Your task to perform on an android device: Search for hotels in Sydney Image 0: 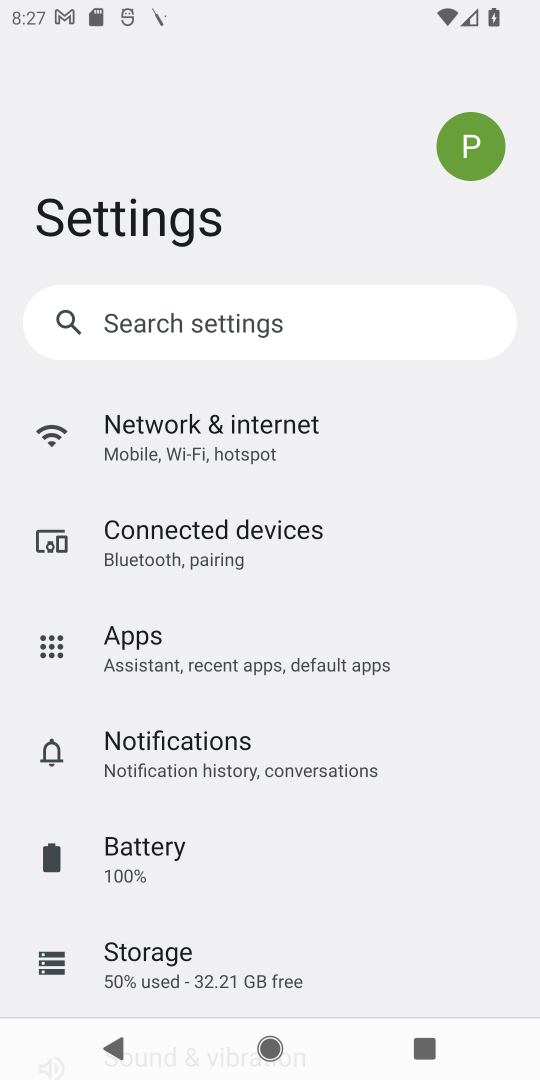
Step 0: press home button
Your task to perform on an android device: Search for hotels in Sydney Image 1: 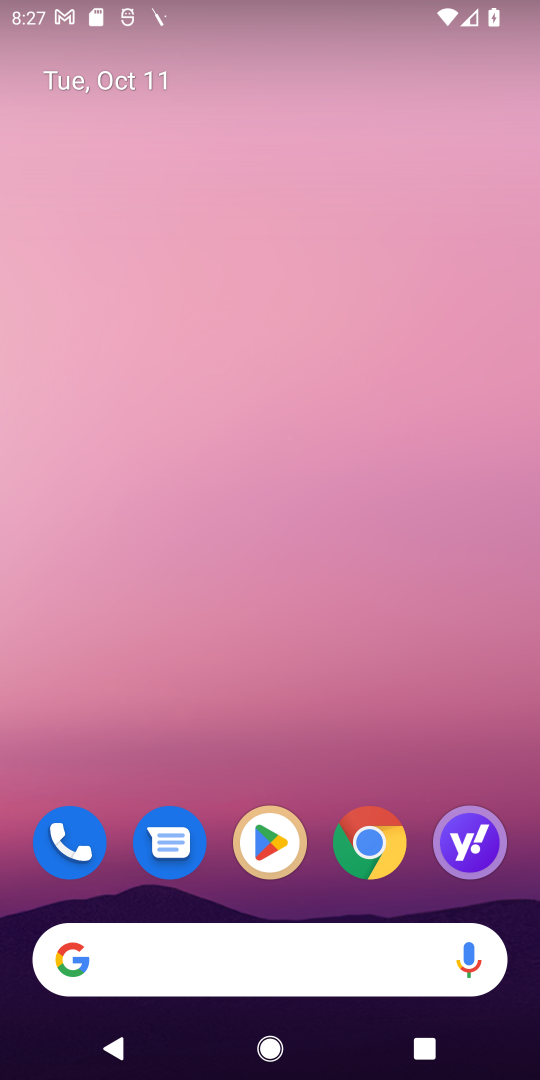
Step 1: click (376, 844)
Your task to perform on an android device: Search for hotels in Sydney Image 2: 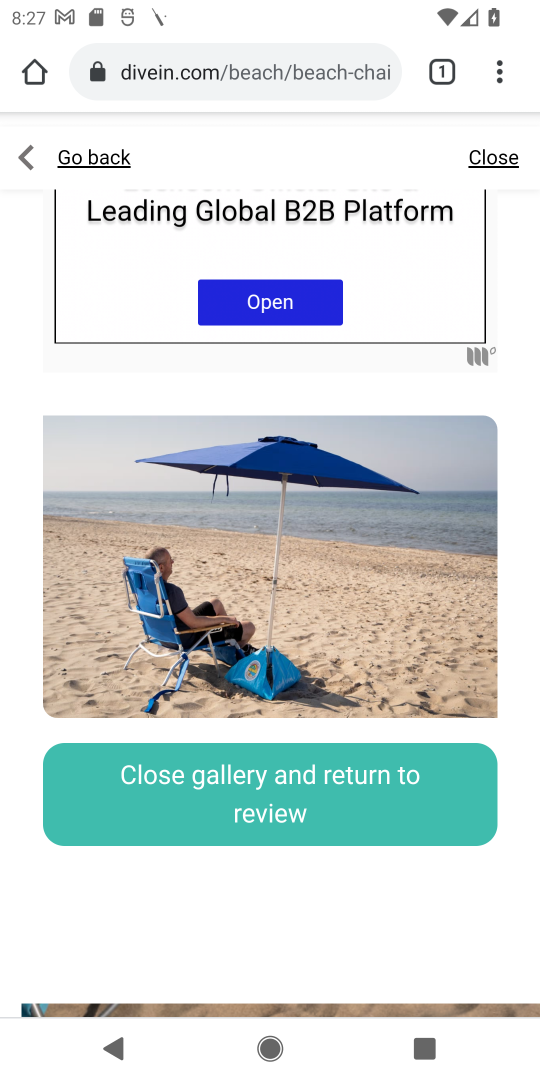
Step 2: click (288, 69)
Your task to perform on an android device: Search for hotels in Sydney Image 3: 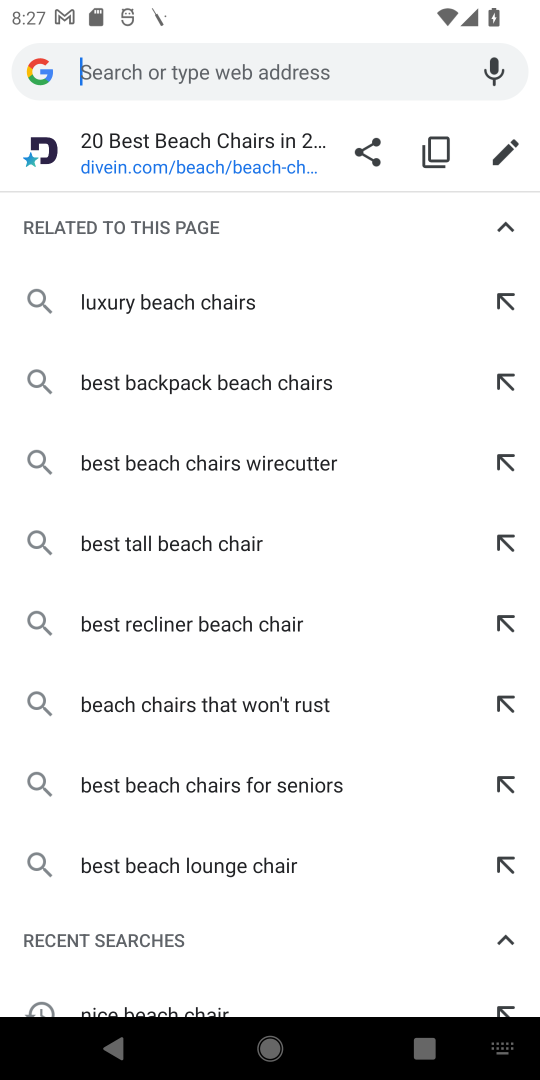
Step 3: type "hotel in sydney "
Your task to perform on an android device: Search for hotels in Sydney Image 4: 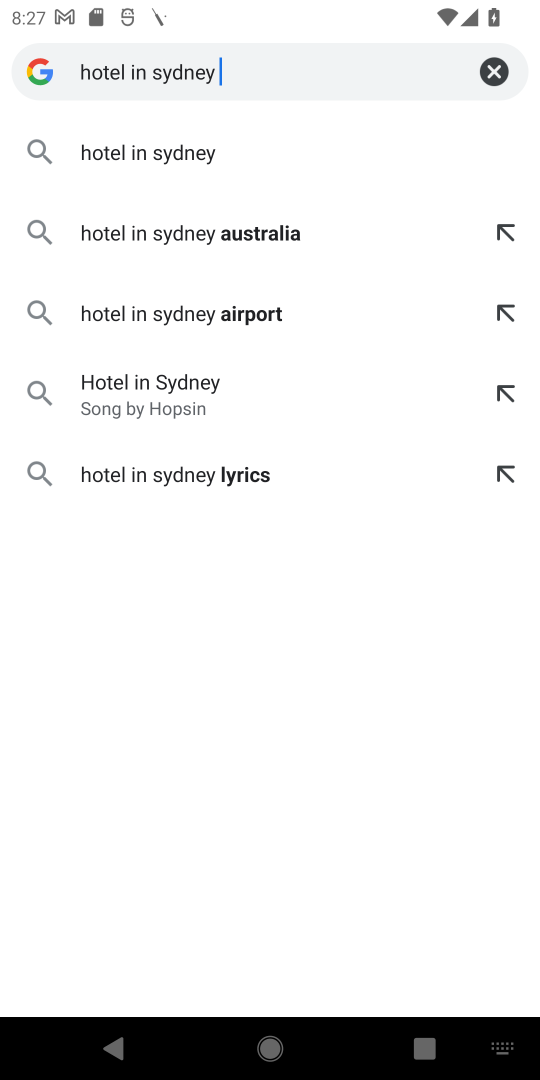
Step 4: click (132, 146)
Your task to perform on an android device: Search for hotels in Sydney Image 5: 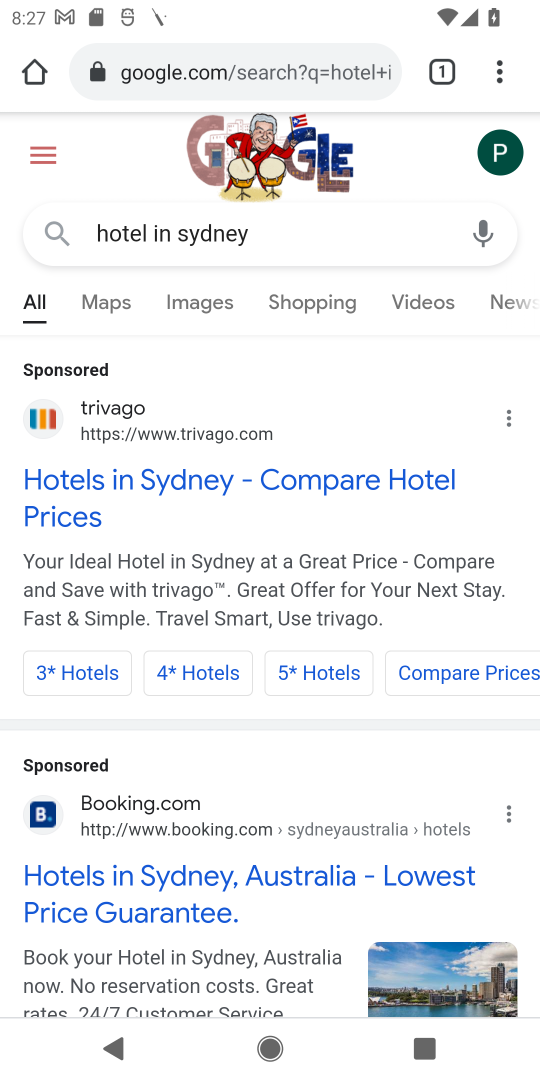
Step 5: click (166, 484)
Your task to perform on an android device: Search for hotels in Sydney Image 6: 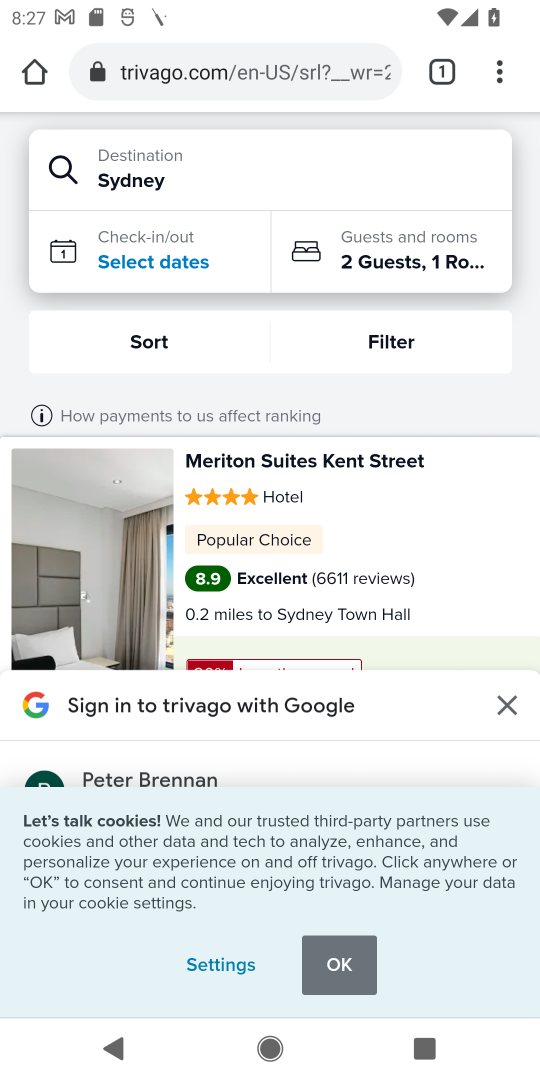
Step 6: click (344, 961)
Your task to perform on an android device: Search for hotels in Sydney Image 7: 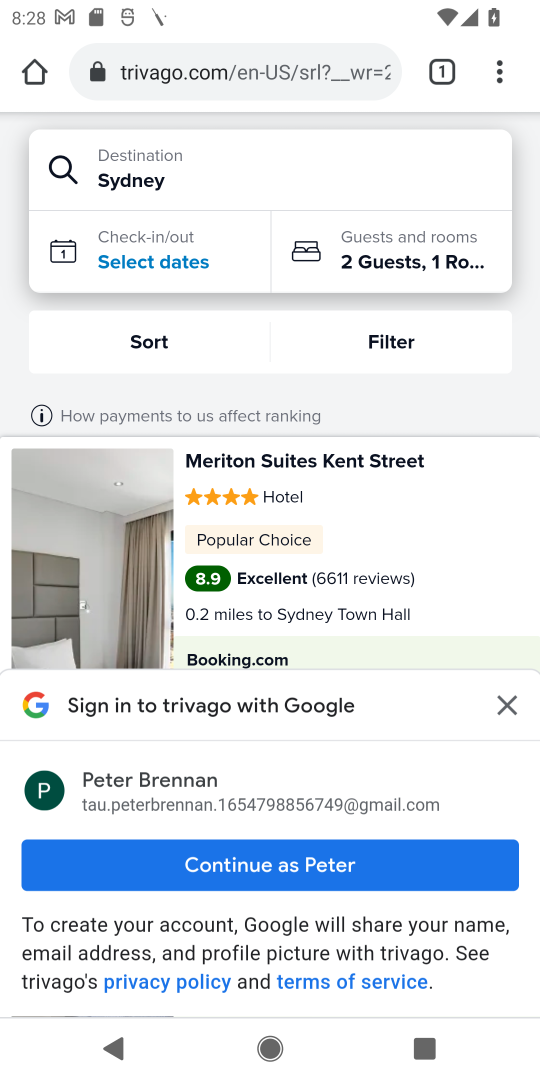
Step 7: click (503, 701)
Your task to perform on an android device: Search for hotels in Sydney Image 8: 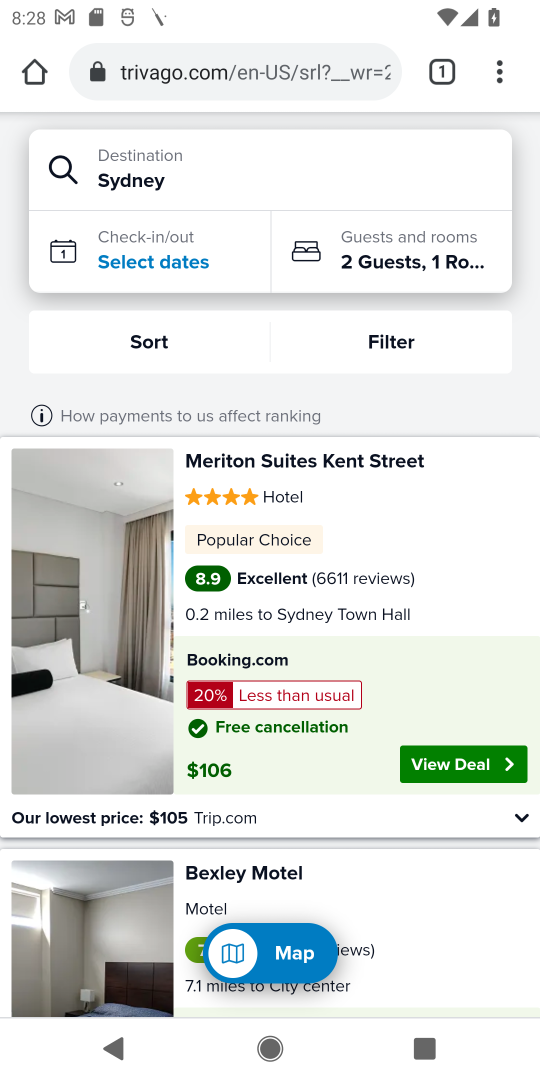
Step 8: drag from (302, 895) to (409, 239)
Your task to perform on an android device: Search for hotels in Sydney Image 9: 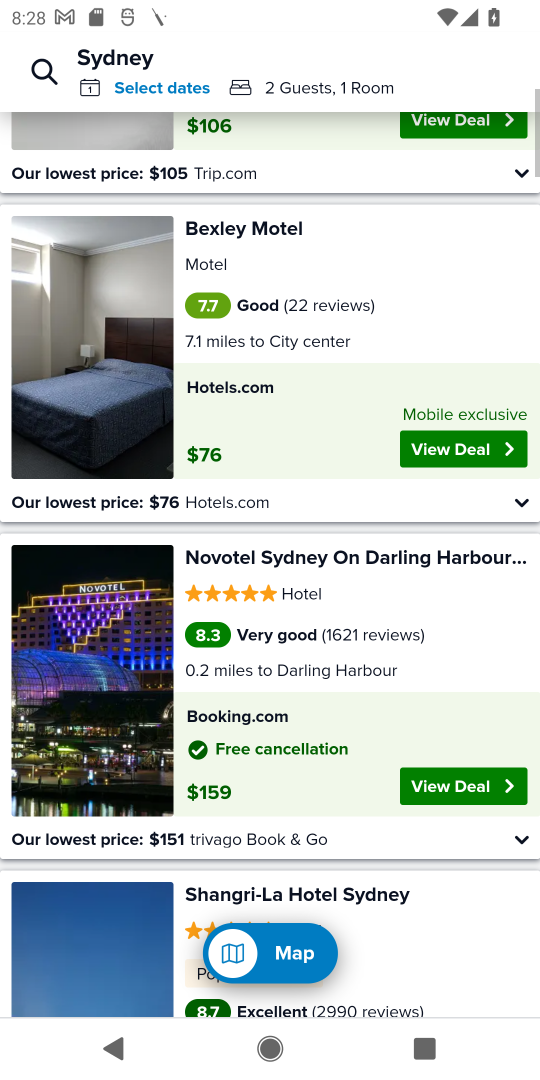
Step 9: drag from (367, 807) to (394, 332)
Your task to perform on an android device: Search for hotels in Sydney Image 10: 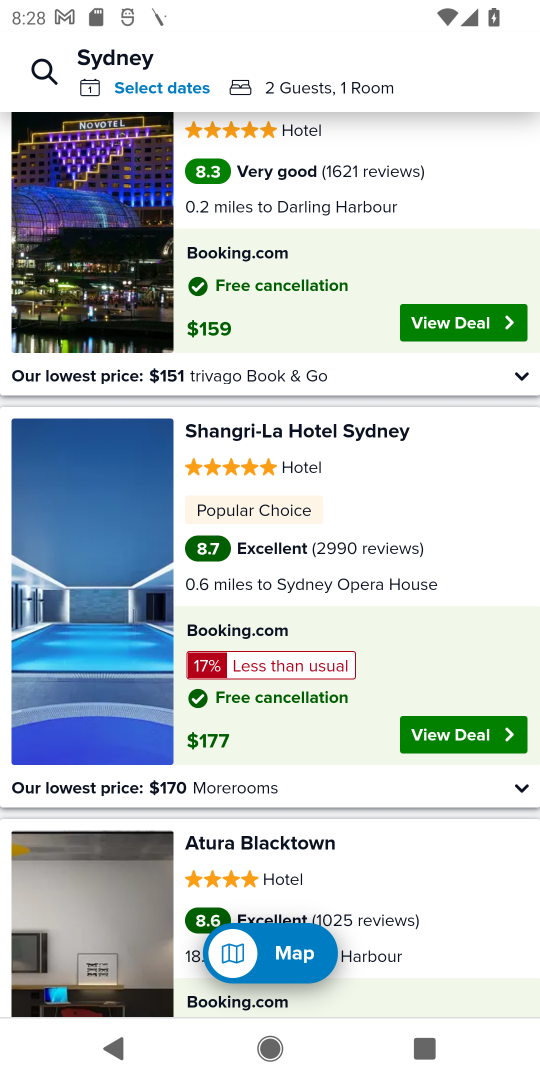
Step 10: drag from (350, 889) to (419, 405)
Your task to perform on an android device: Search for hotels in Sydney Image 11: 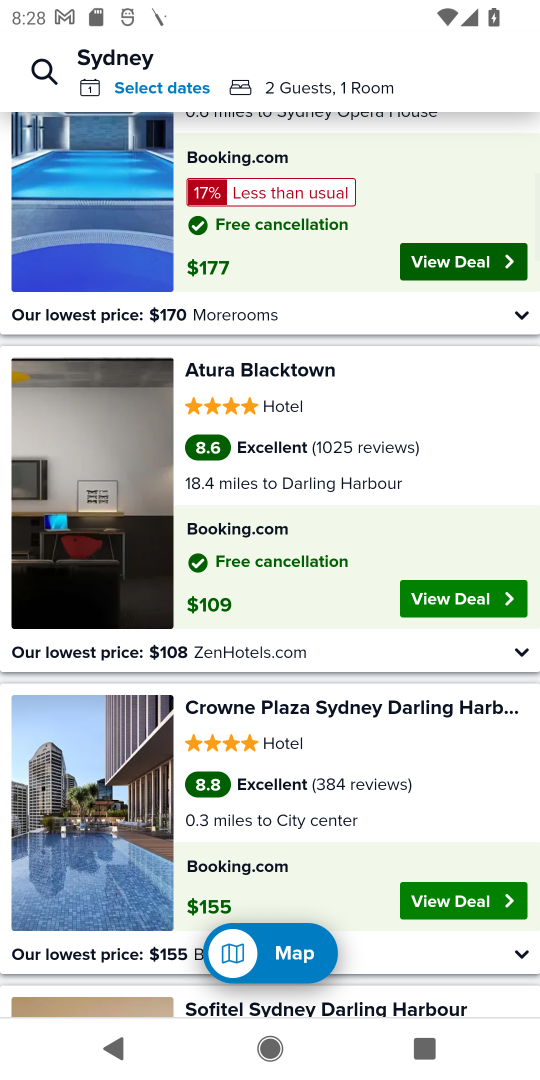
Step 11: drag from (370, 793) to (413, 359)
Your task to perform on an android device: Search for hotels in Sydney Image 12: 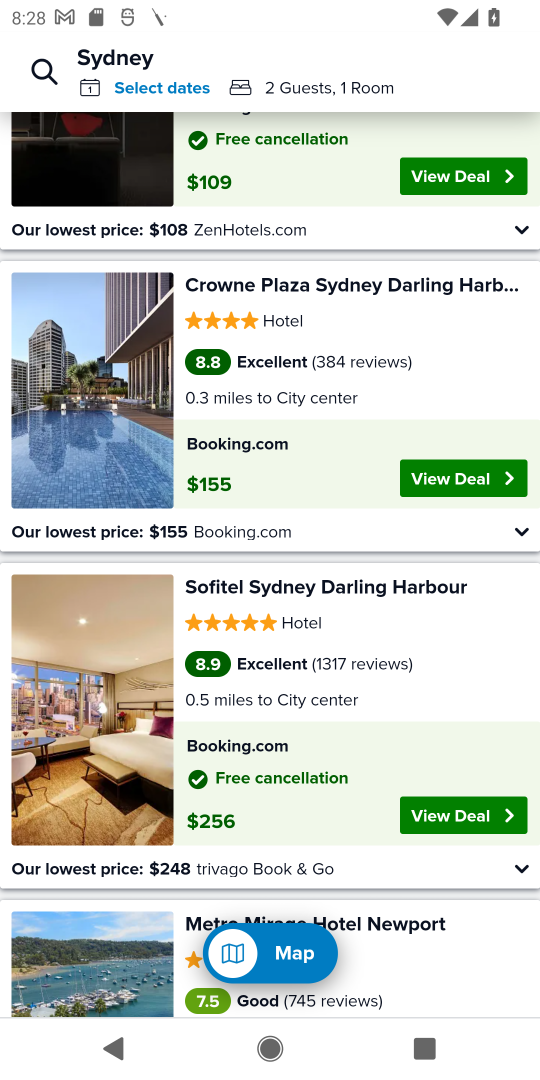
Step 12: drag from (370, 827) to (415, 426)
Your task to perform on an android device: Search for hotels in Sydney Image 13: 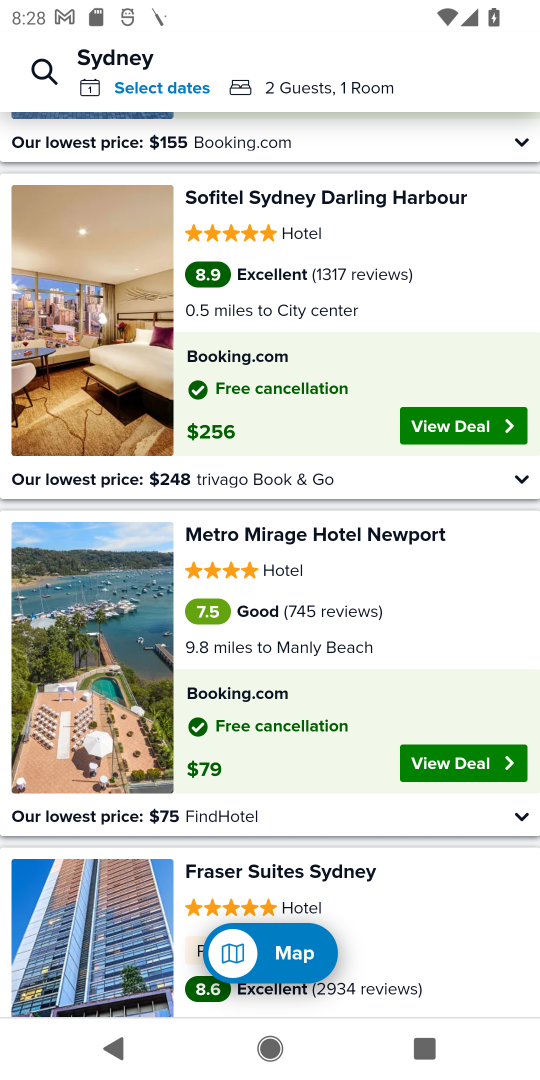
Step 13: drag from (366, 918) to (378, 461)
Your task to perform on an android device: Search for hotels in Sydney Image 14: 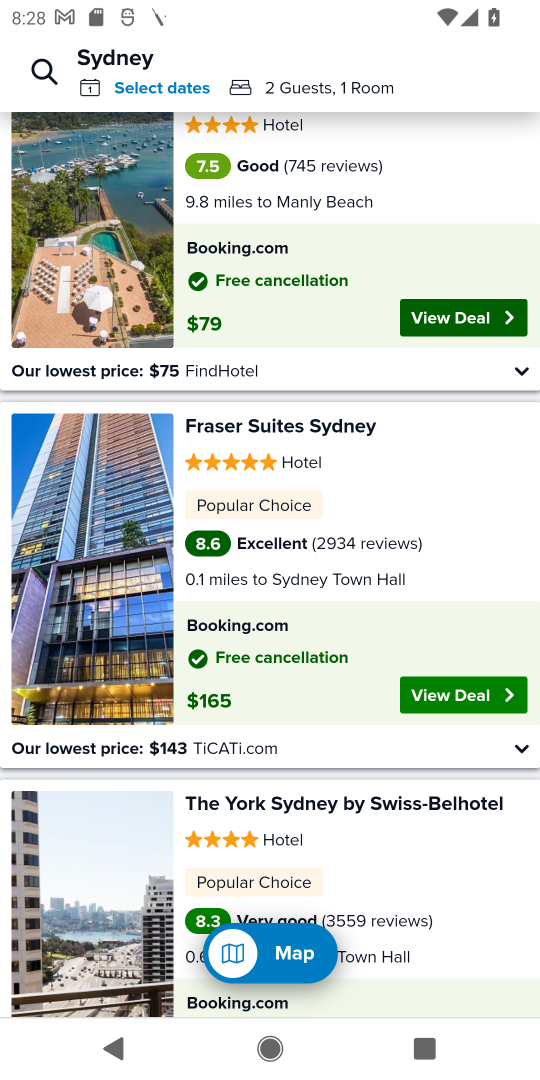
Step 14: drag from (358, 683) to (314, 182)
Your task to perform on an android device: Search for hotels in Sydney Image 15: 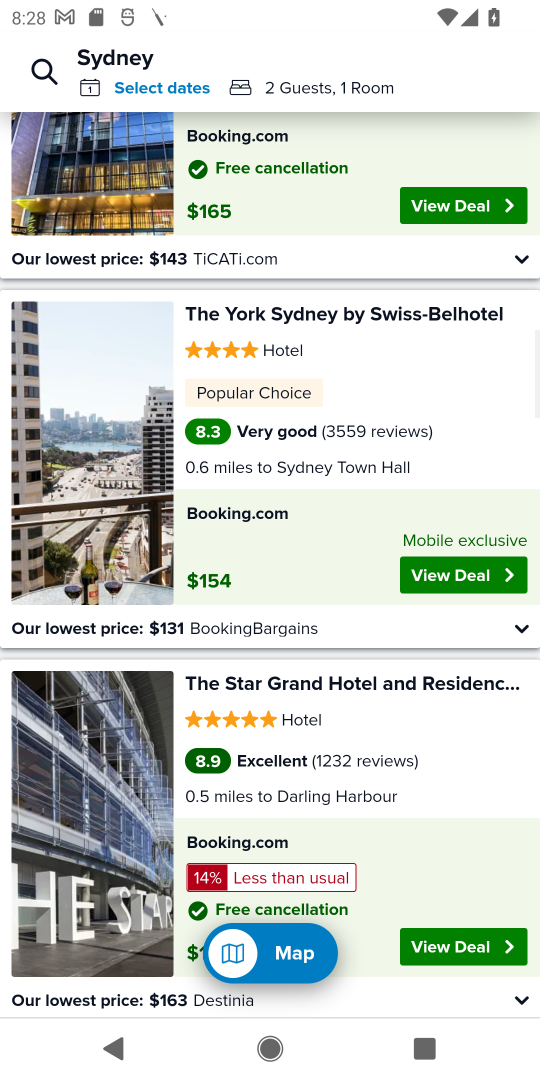
Step 15: drag from (368, 762) to (329, 164)
Your task to perform on an android device: Search for hotels in Sydney Image 16: 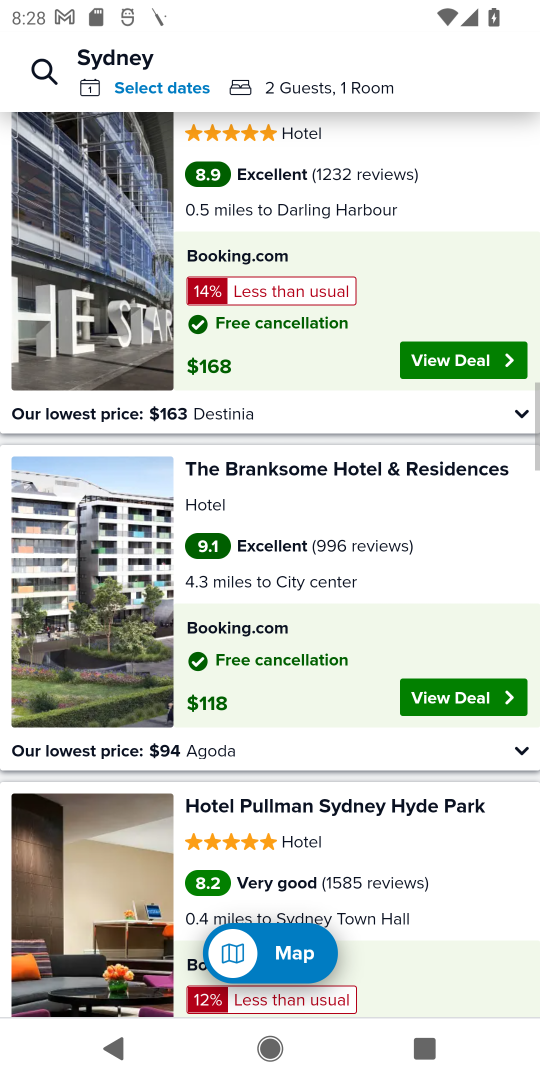
Step 16: drag from (314, 854) to (368, 279)
Your task to perform on an android device: Search for hotels in Sydney Image 17: 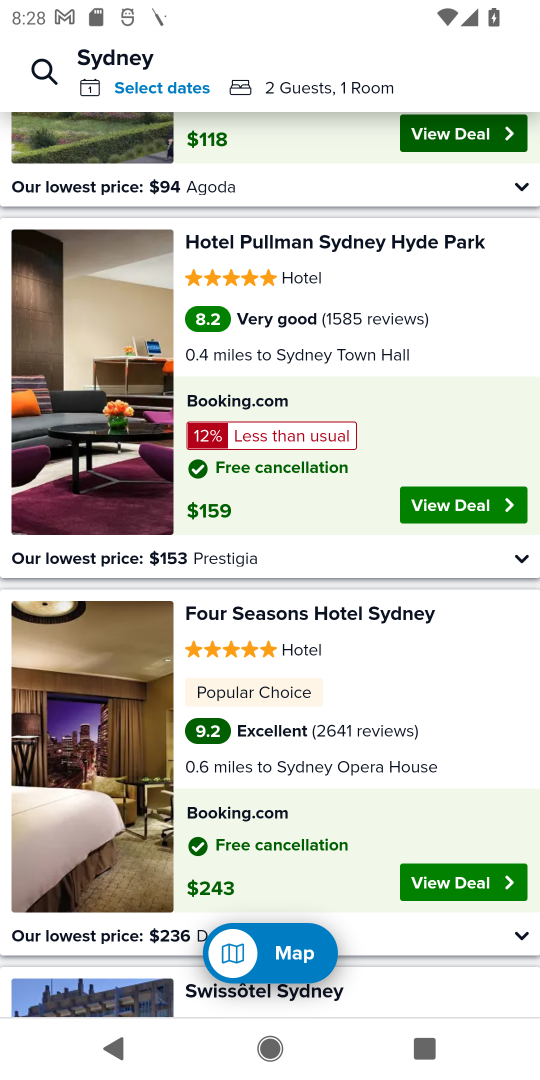
Step 17: drag from (394, 954) to (390, 422)
Your task to perform on an android device: Search for hotels in Sydney Image 18: 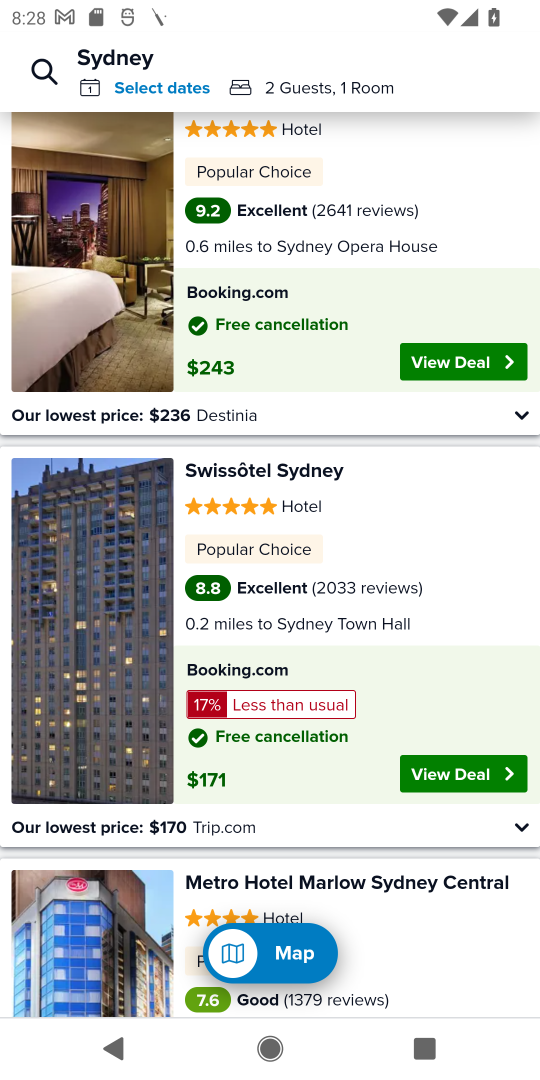
Step 18: drag from (377, 936) to (353, 338)
Your task to perform on an android device: Search for hotels in Sydney Image 19: 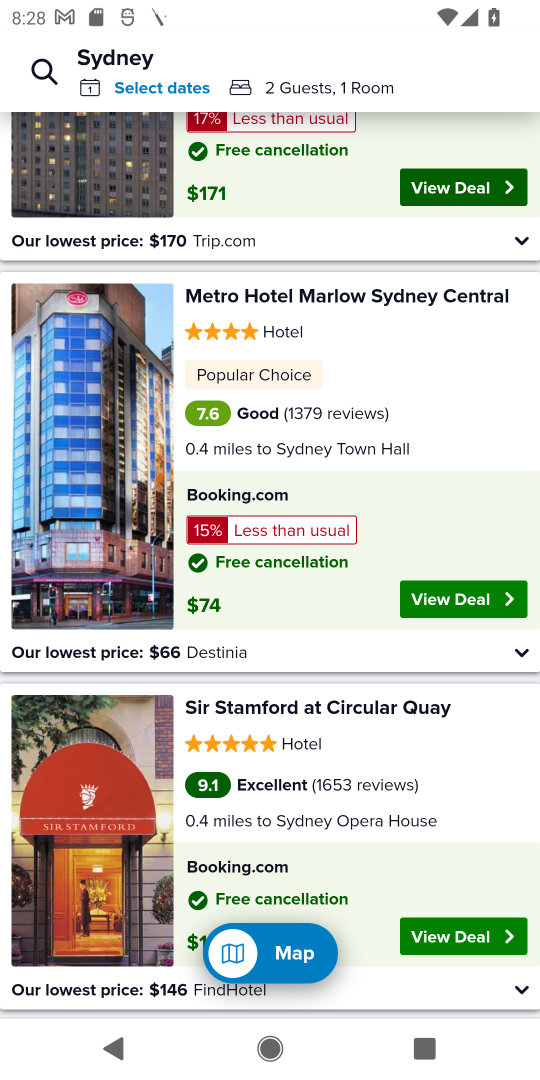
Step 19: drag from (155, 818) to (160, 419)
Your task to perform on an android device: Search for hotels in Sydney Image 20: 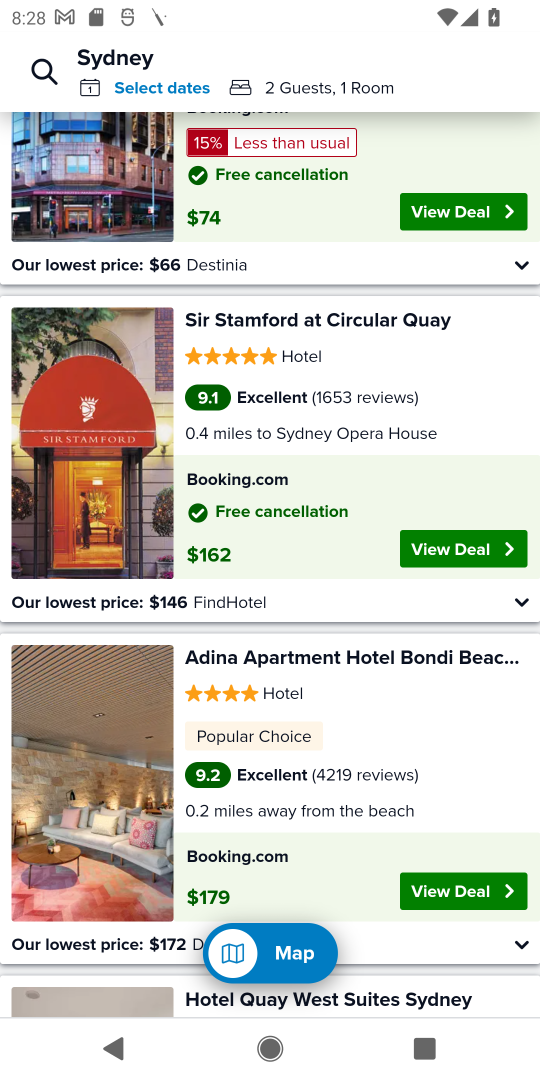
Step 20: drag from (174, 884) to (248, 155)
Your task to perform on an android device: Search for hotels in Sydney Image 21: 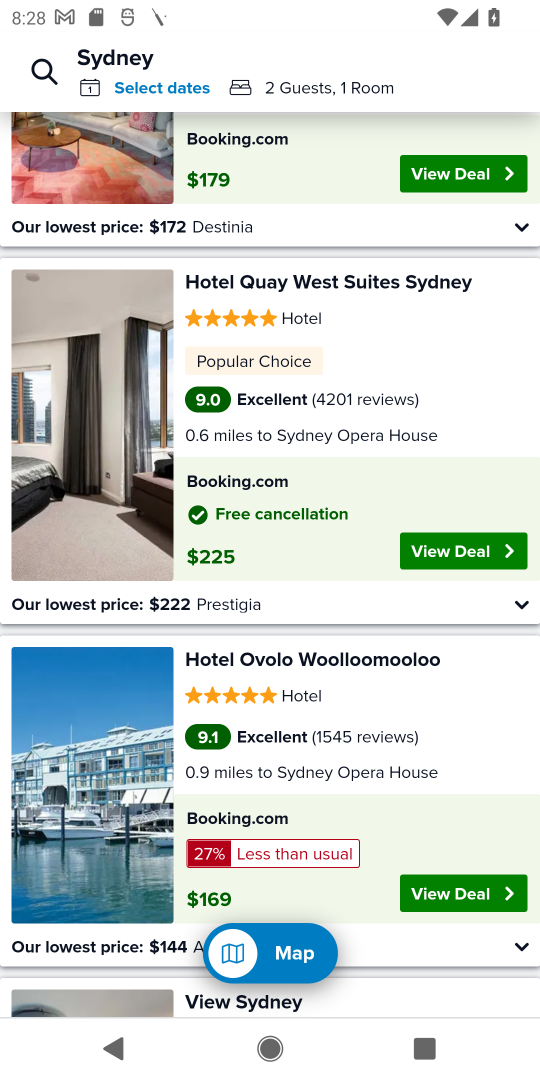
Step 21: drag from (89, 792) to (191, 310)
Your task to perform on an android device: Search for hotels in Sydney Image 22: 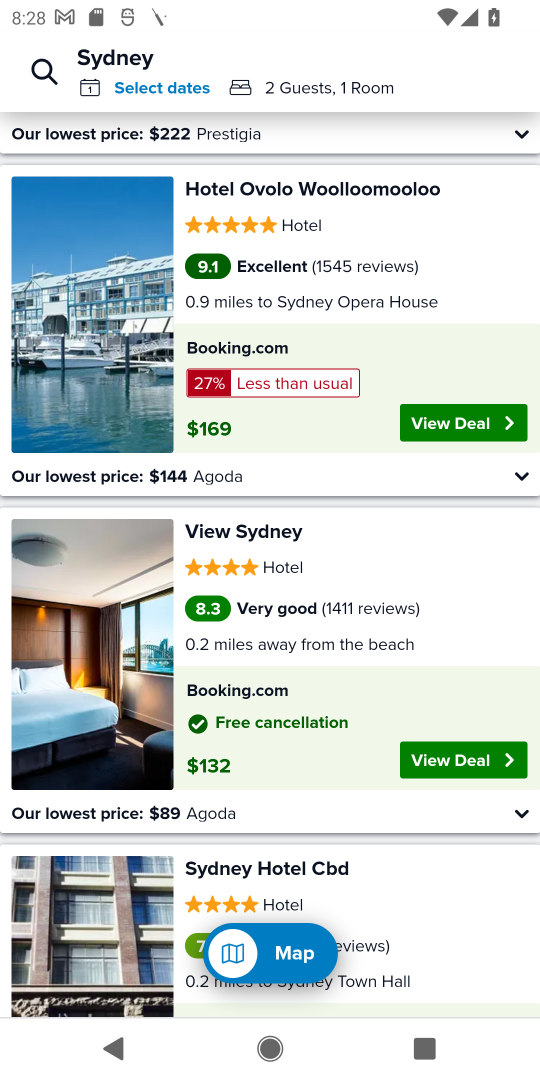
Step 22: drag from (172, 680) to (282, 300)
Your task to perform on an android device: Search for hotels in Sydney Image 23: 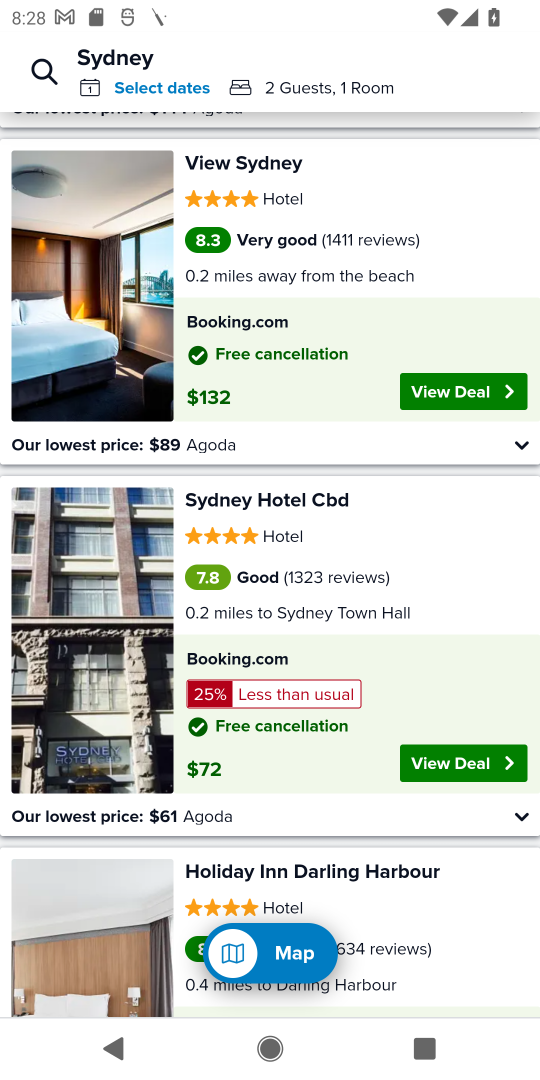
Step 23: drag from (205, 780) to (324, 338)
Your task to perform on an android device: Search for hotels in Sydney Image 24: 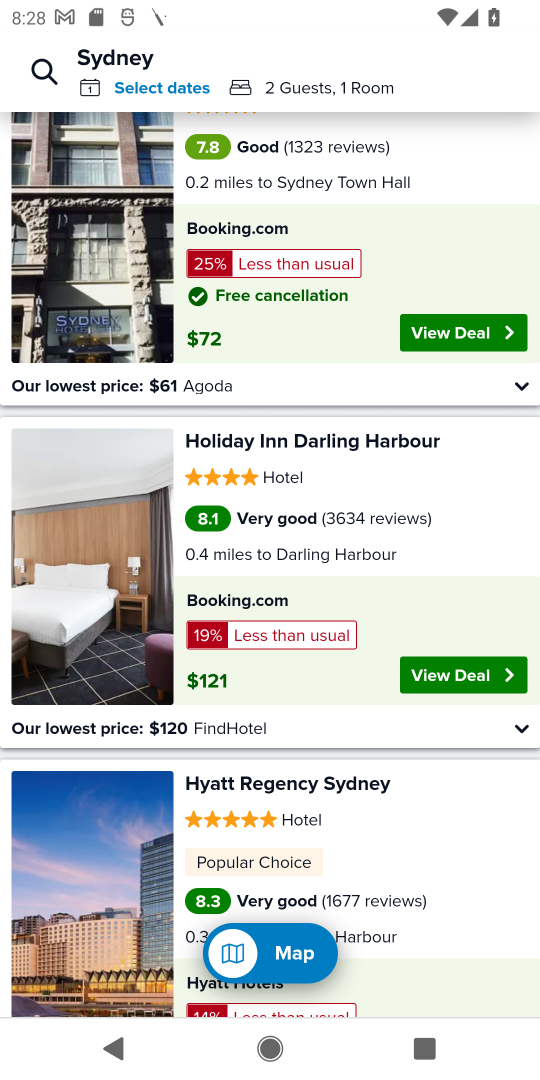
Step 24: drag from (143, 675) to (167, 245)
Your task to perform on an android device: Search for hotels in Sydney Image 25: 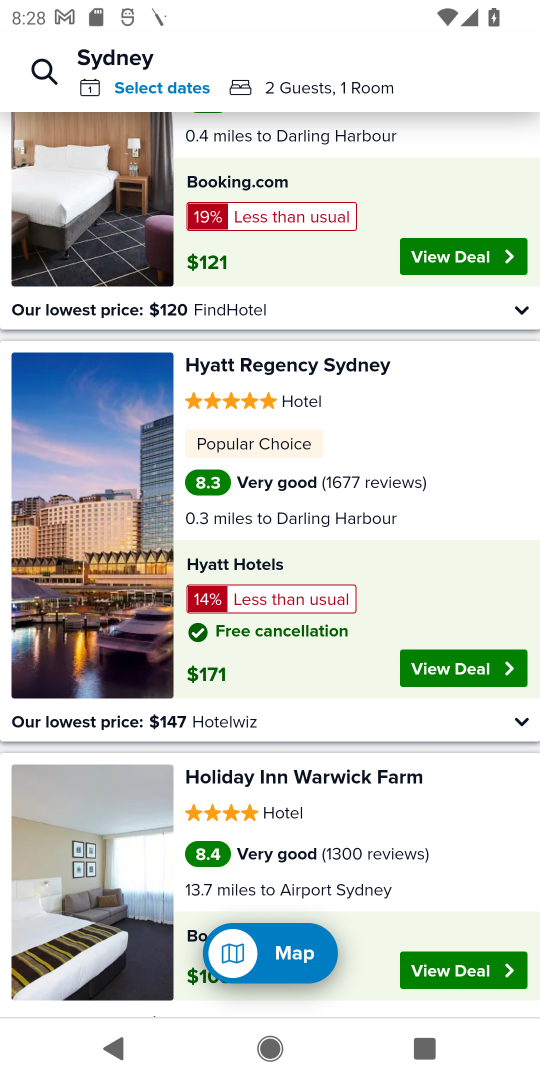
Step 25: drag from (131, 888) to (133, 354)
Your task to perform on an android device: Search for hotels in Sydney Image 26: 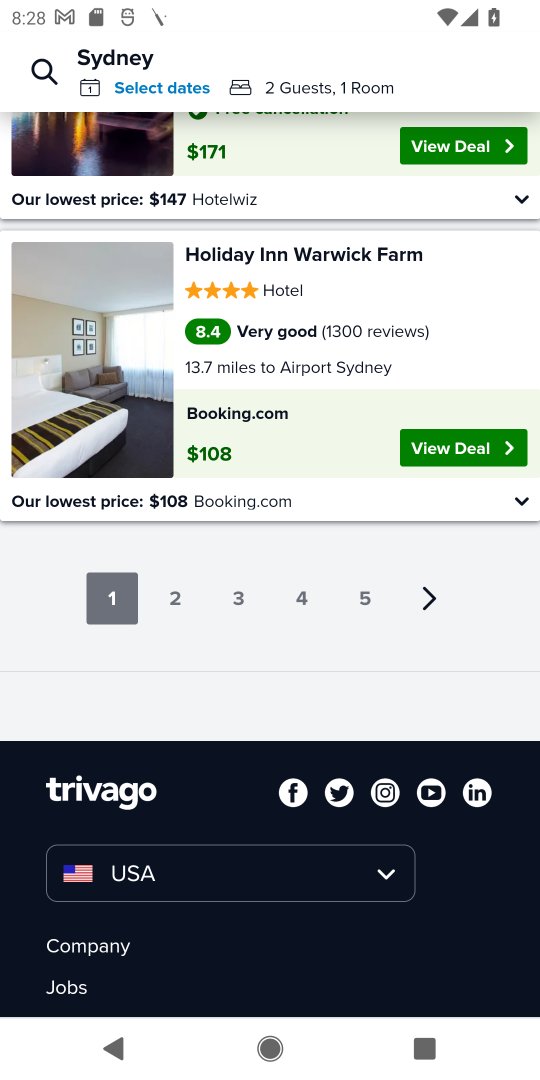
Step 26: drag from (261, 331) to (246, 1072)
Your task to perform on an android device: Search for hotels in Sydney Image 27: 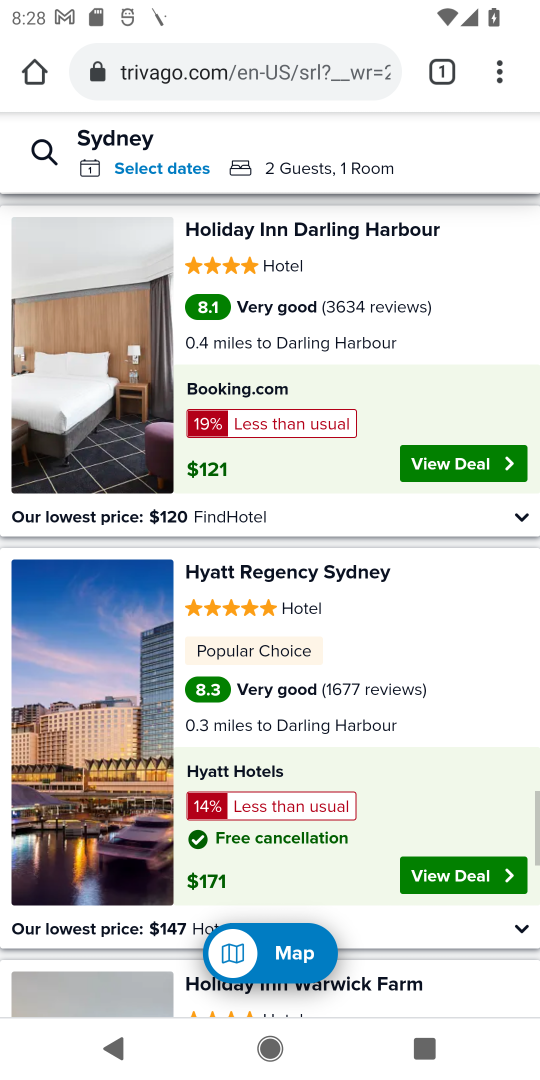
Step 27: drag from (332, 839) to (288, 1073)
Your task to perform on an android device: Search for hotels in Sydney Image 28: 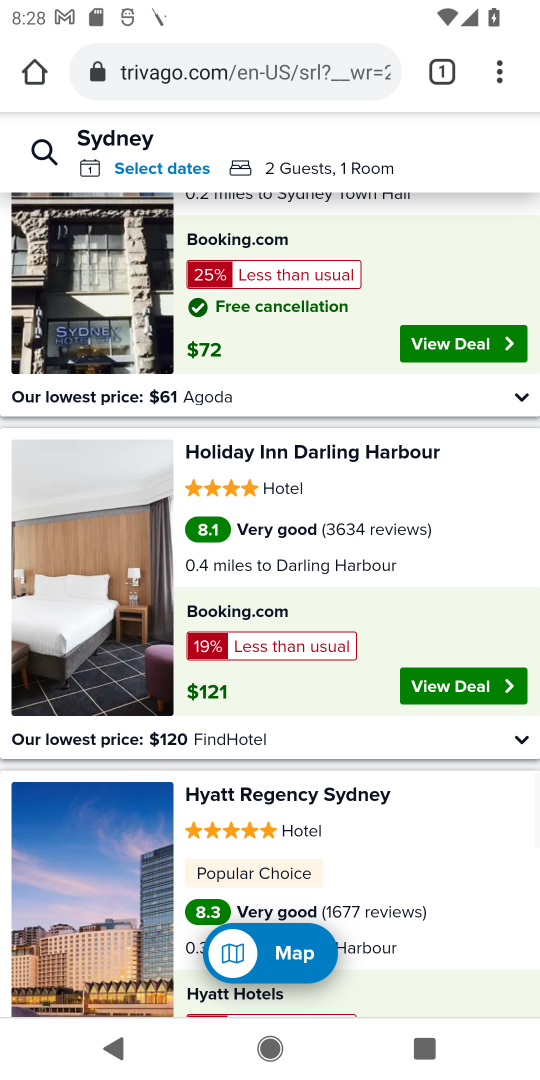
Step 28: drag from (254, 511) to (337, 1073)
Your task to perform on an android device: Search for hotels in Sydney Image 29: 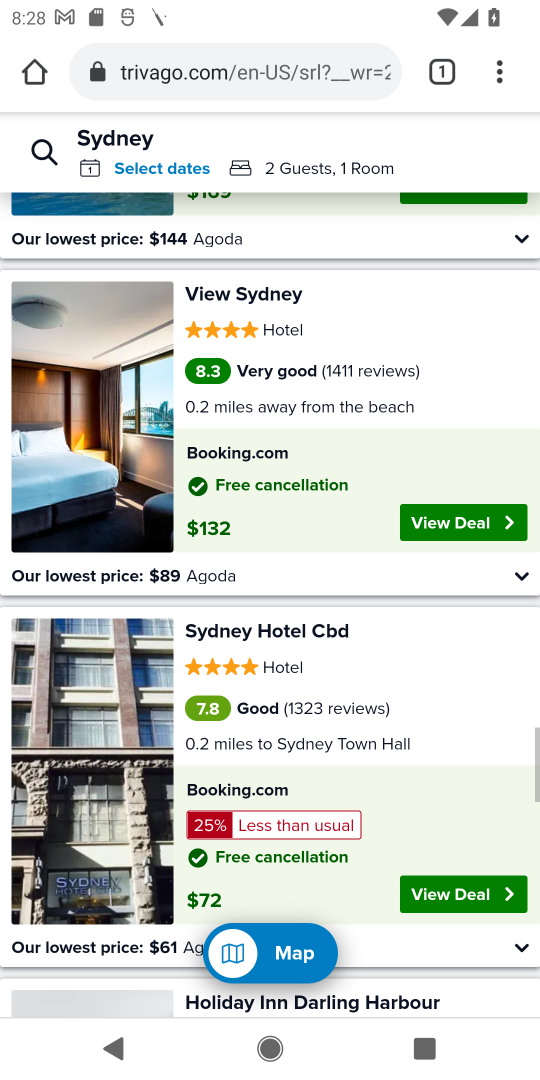
Step 29: drag from (165, 615) to (206, 1003)
Your task to perform on an android device: Search for hotels in Sydney Image 30: 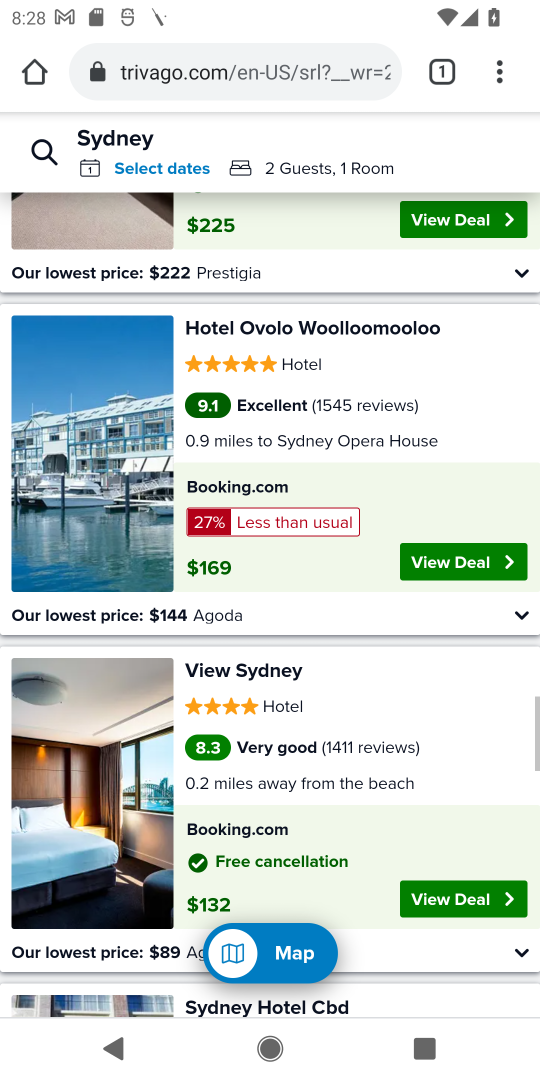
Step 30: drag from (300, 437) to (187, 1056)
Your task to perform on an android device: Search for hotels in Sydney Image 31: 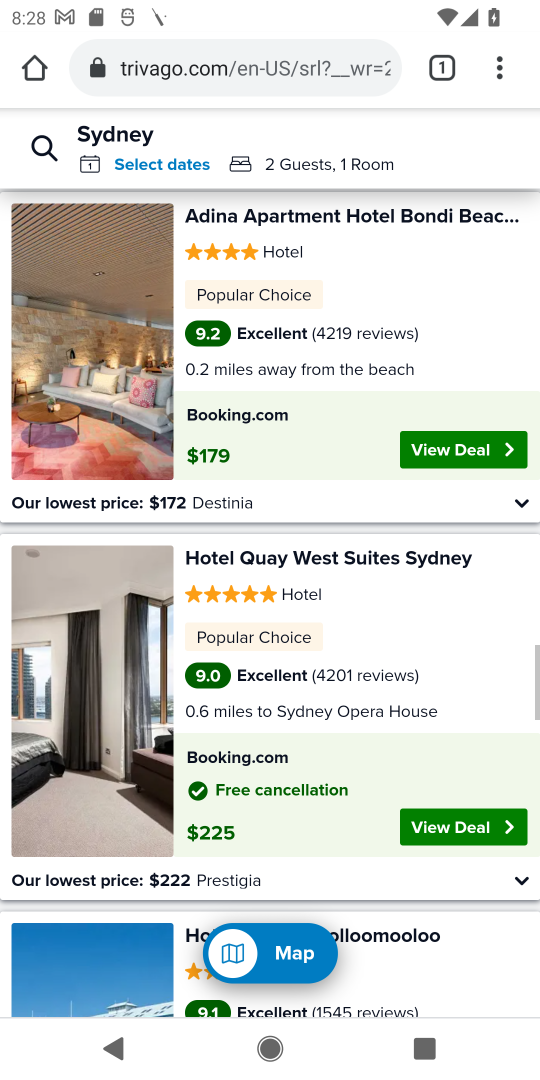
Step 31: drag from (66, 408) to (106, 983)
Your task to perform on an android device: Search for hotels in Sydney Image 32: 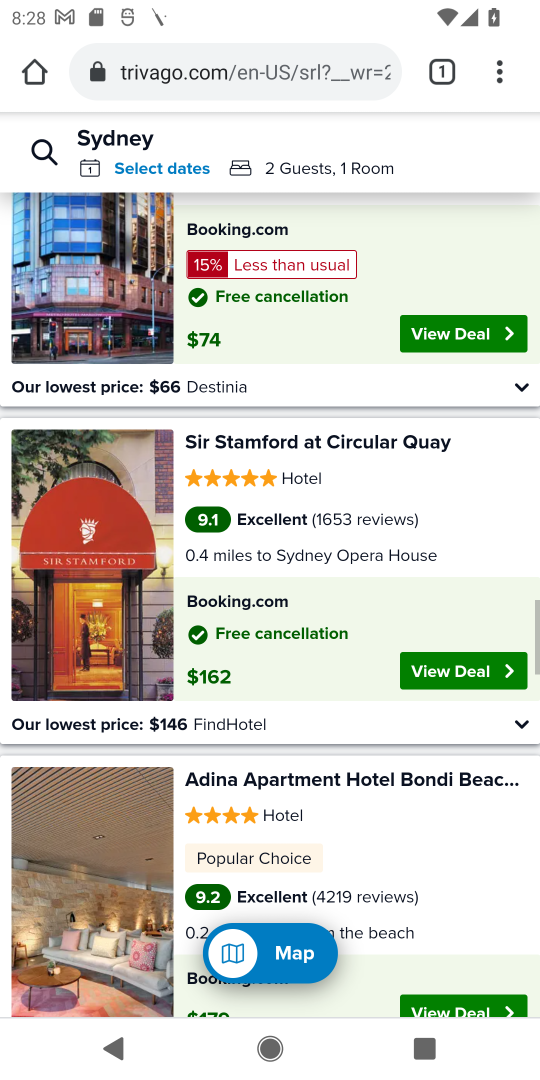
Step 32: drag from (256, 376) to (261, 856)
Your task to perform on an android device: Search for hotels in Sydney Image 33: 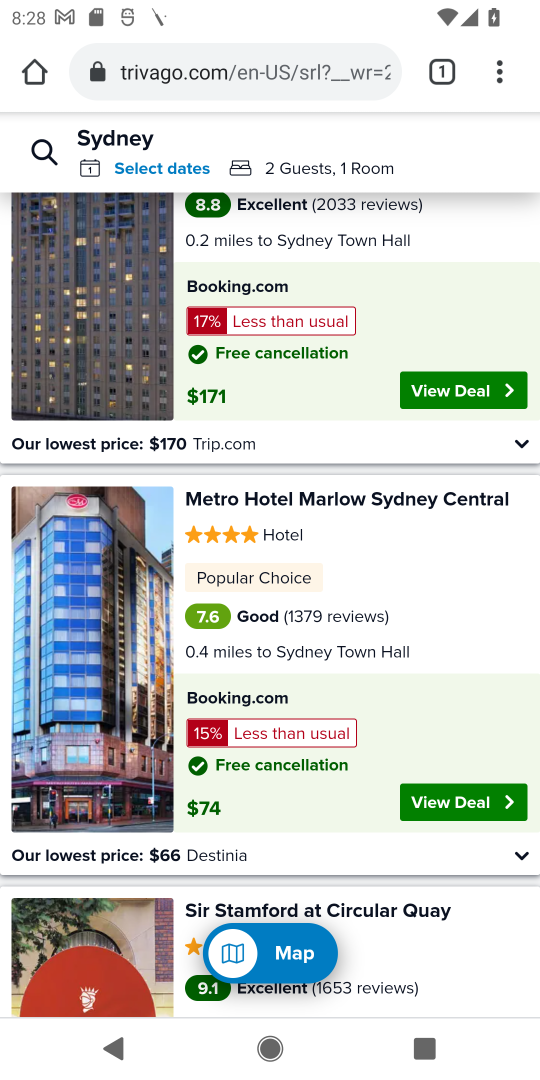
Step 33: drag from (175, 446) to (164, 886)
Your task to perform on an android device: Search for hotels in Sydney Image 34: 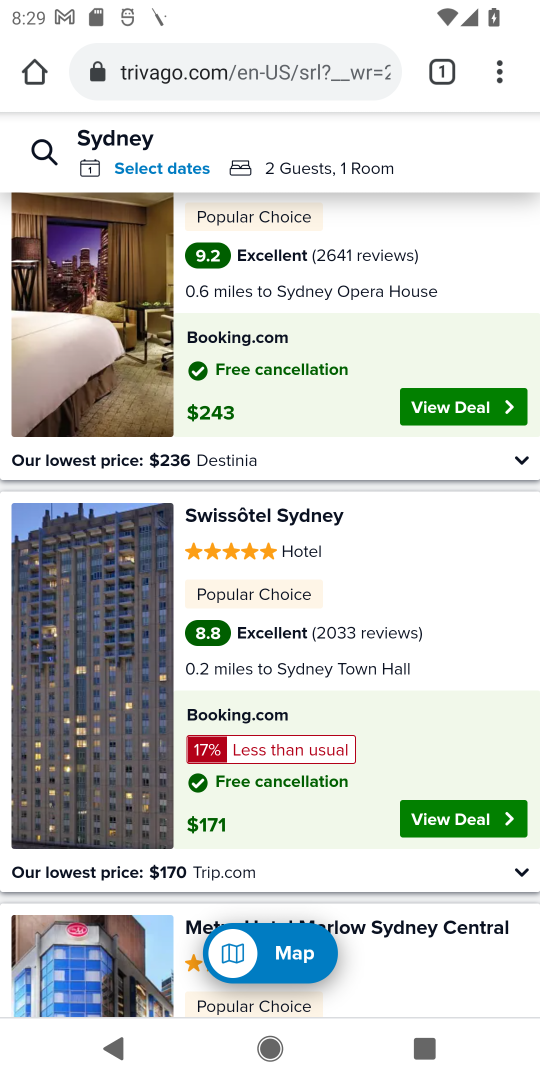
Step 34: click (69, 595)
Your task to perform on an android device: Search for hotels in Sydney Image 35: 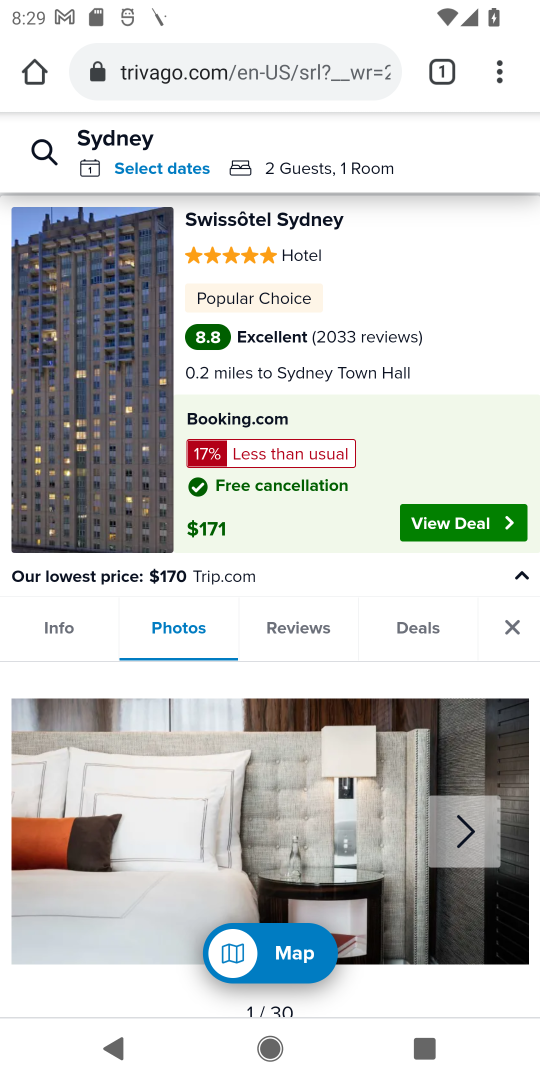
Step 35: drag from (76, 814) to (106, 199)
Your task to perform on an android device: Search for hotels in Sydney Image 36: 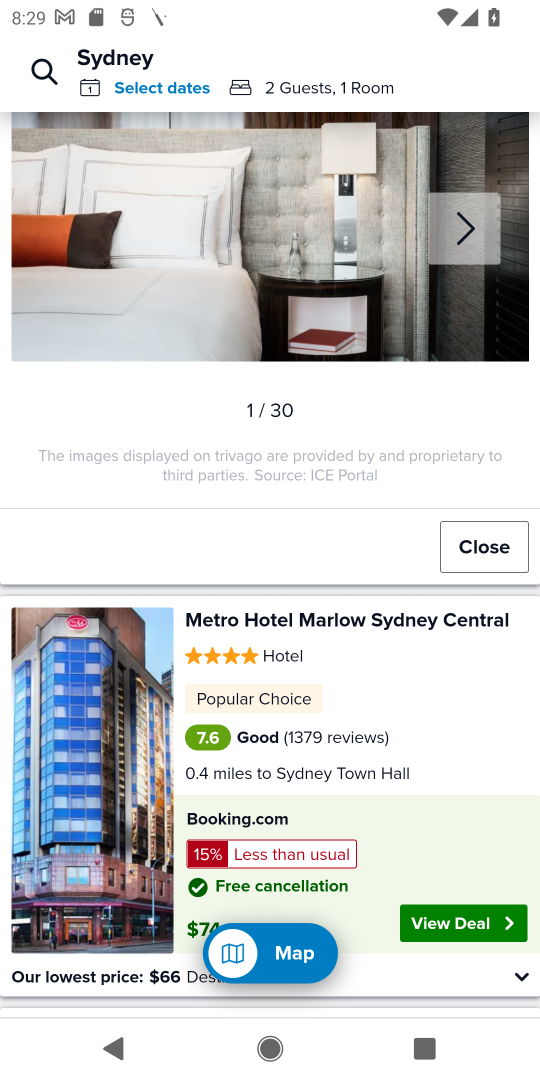
Step 36: drag from (375, 642) to (368, 243)
Your task to perform on an android device: Search for hotels in Sydney Image 37: 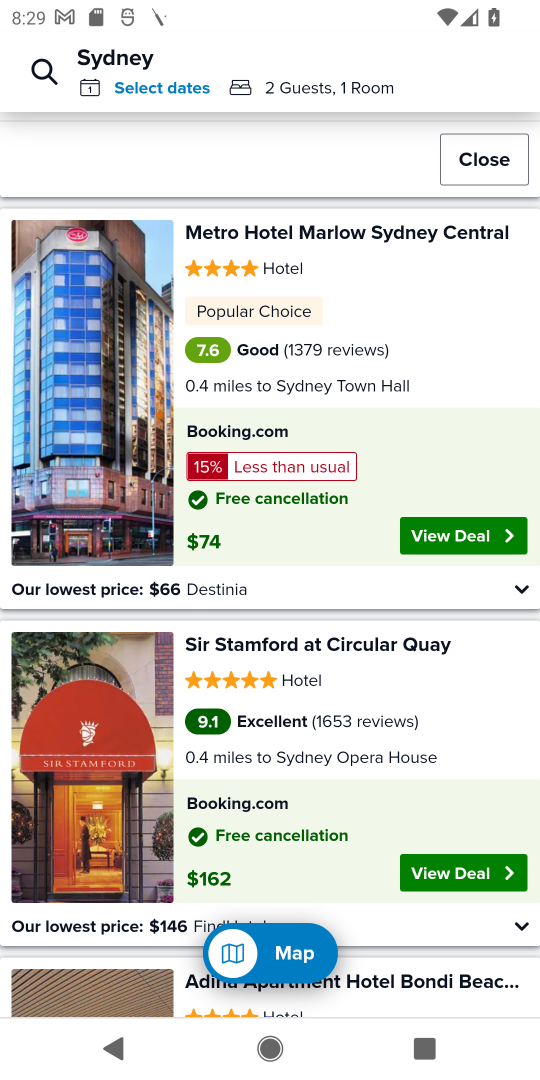
Step 37: drag from (292, 691) to (350, 316)
Your task to perform on an android device: Search for hotels in Sydney Image 38: 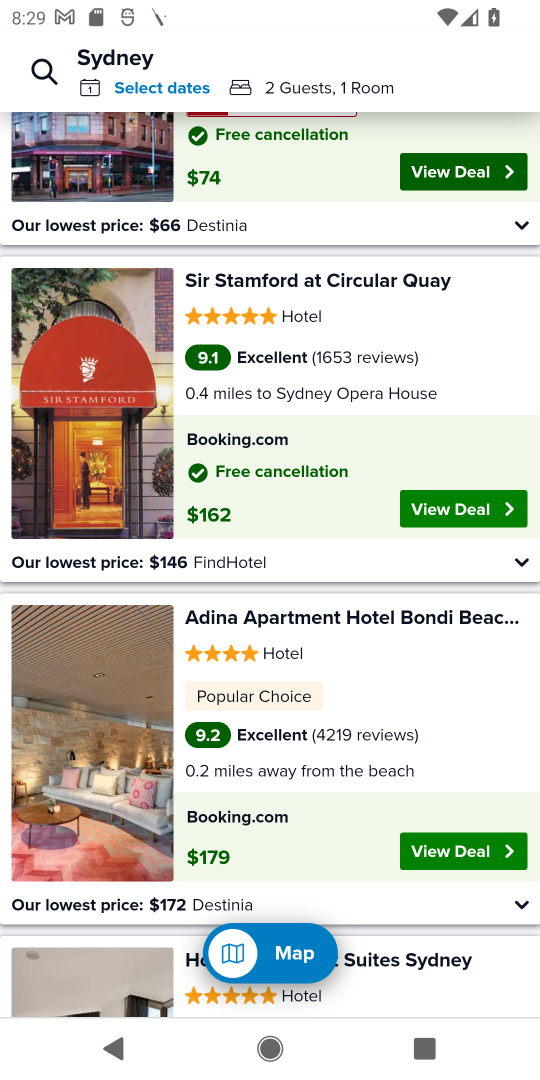
Step 38: drag from (337, 750) to (342, 316)
Your task to perform on an android device: Search for hotels in Sydney Image 39: 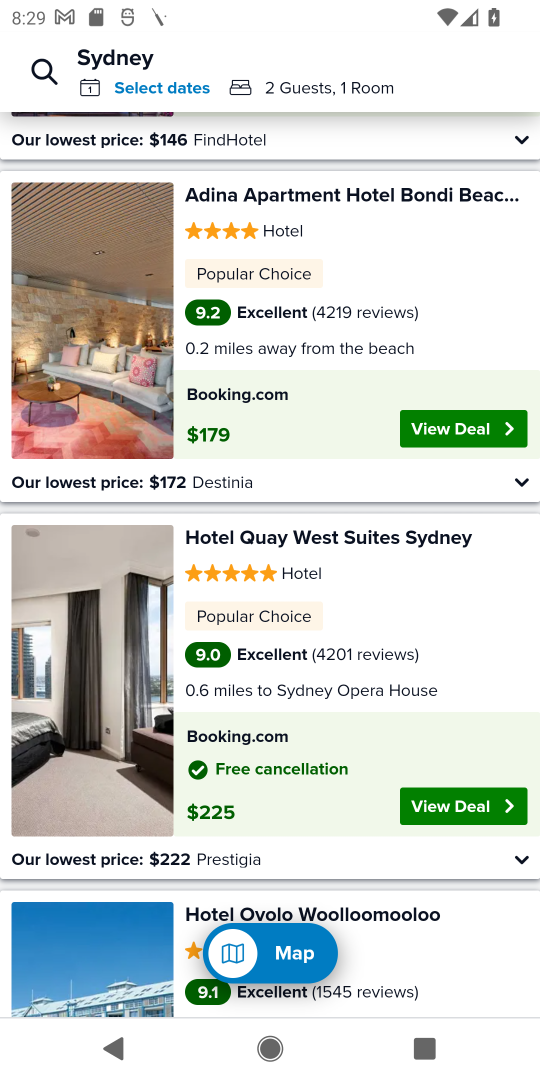
Step 39: drag from (284, 628) to (300, 317)
Your task to perform on an android device: Search for hotels in Sydney Image 40: 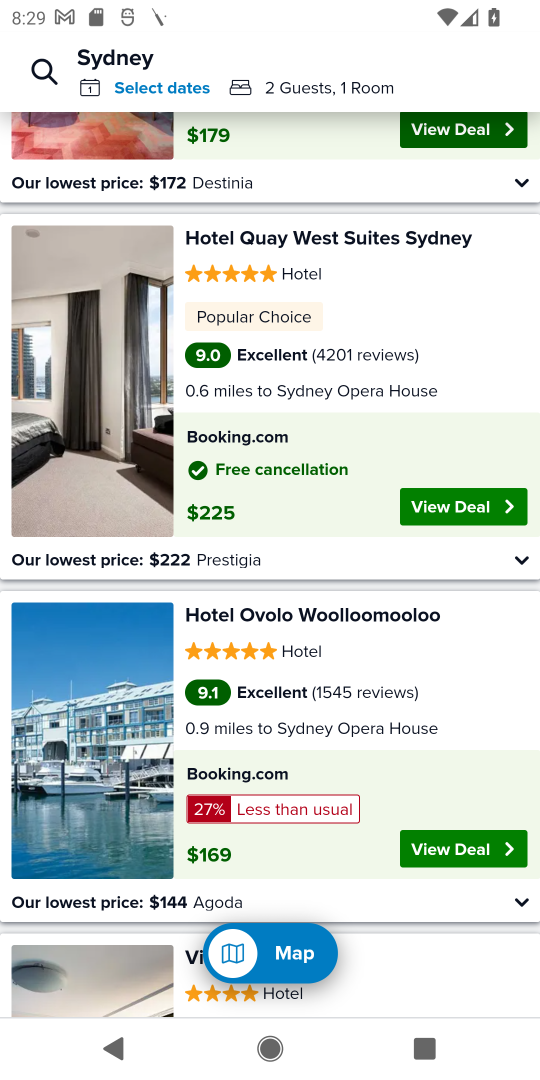
Step 40: click (119, 661)
Your task to perform on an android device: Search for hotels in Sydney Image 41: 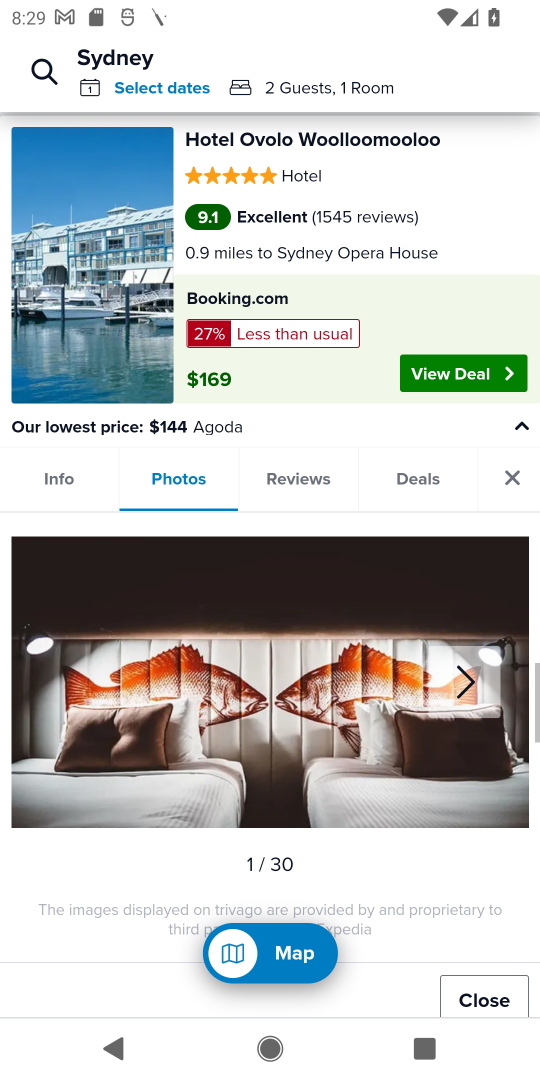
Step 41: click (267, 616)
Your task to perform on an android device: Search for hotels in Sydney Image 42: 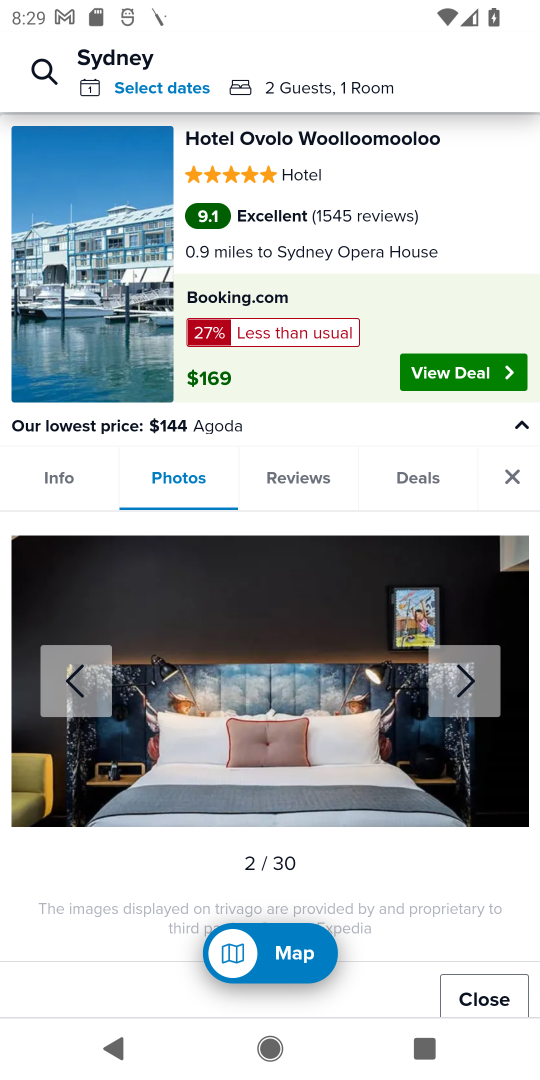
Step 42: click (472, 668)
Your task to perform on an android device: Search for hotels in Sydney Image 43: 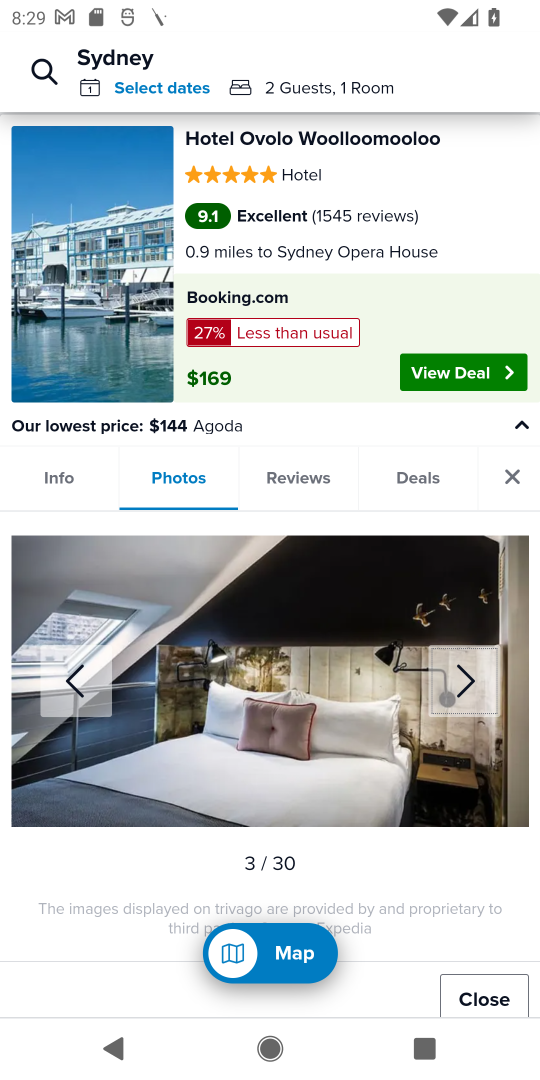
Step 43: click (471, 688)
Your task to perform on an android device: Search for hotels in Sydney Image 44: 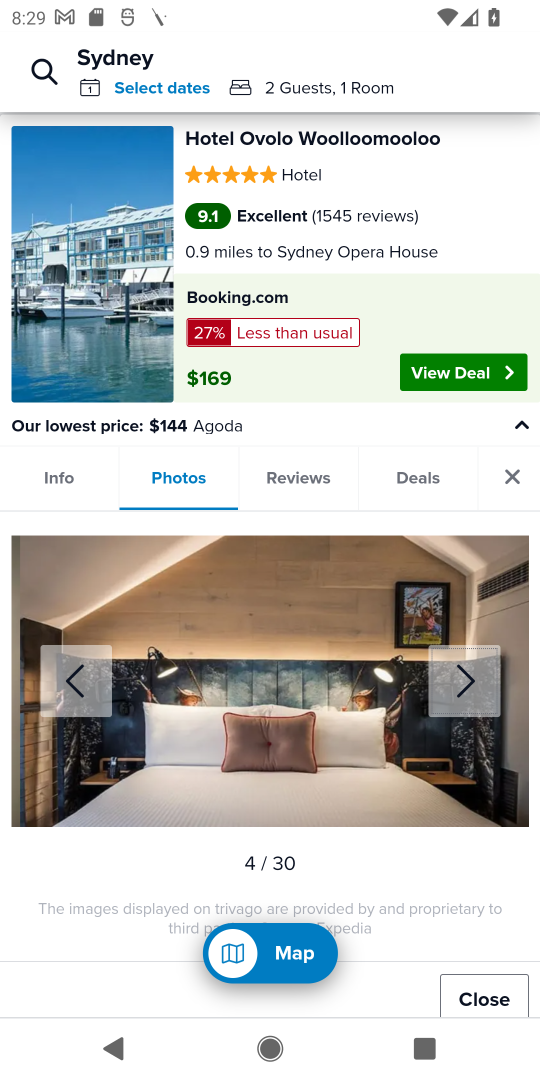
Step 44: task complete